Your task to perform on an android device: Open Amazon Image 0: 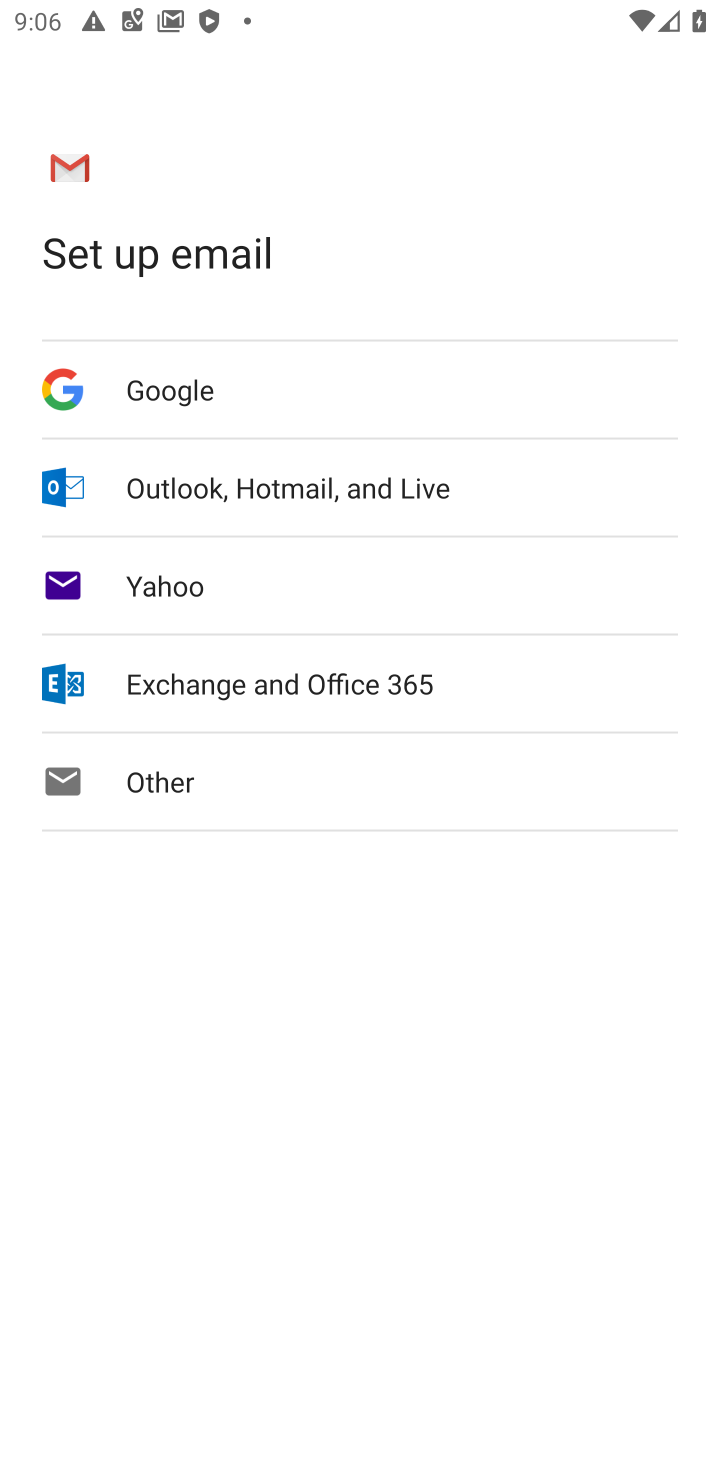
Step 0: press home button
Your task to perform on an android device: Open Amazon Image 1: 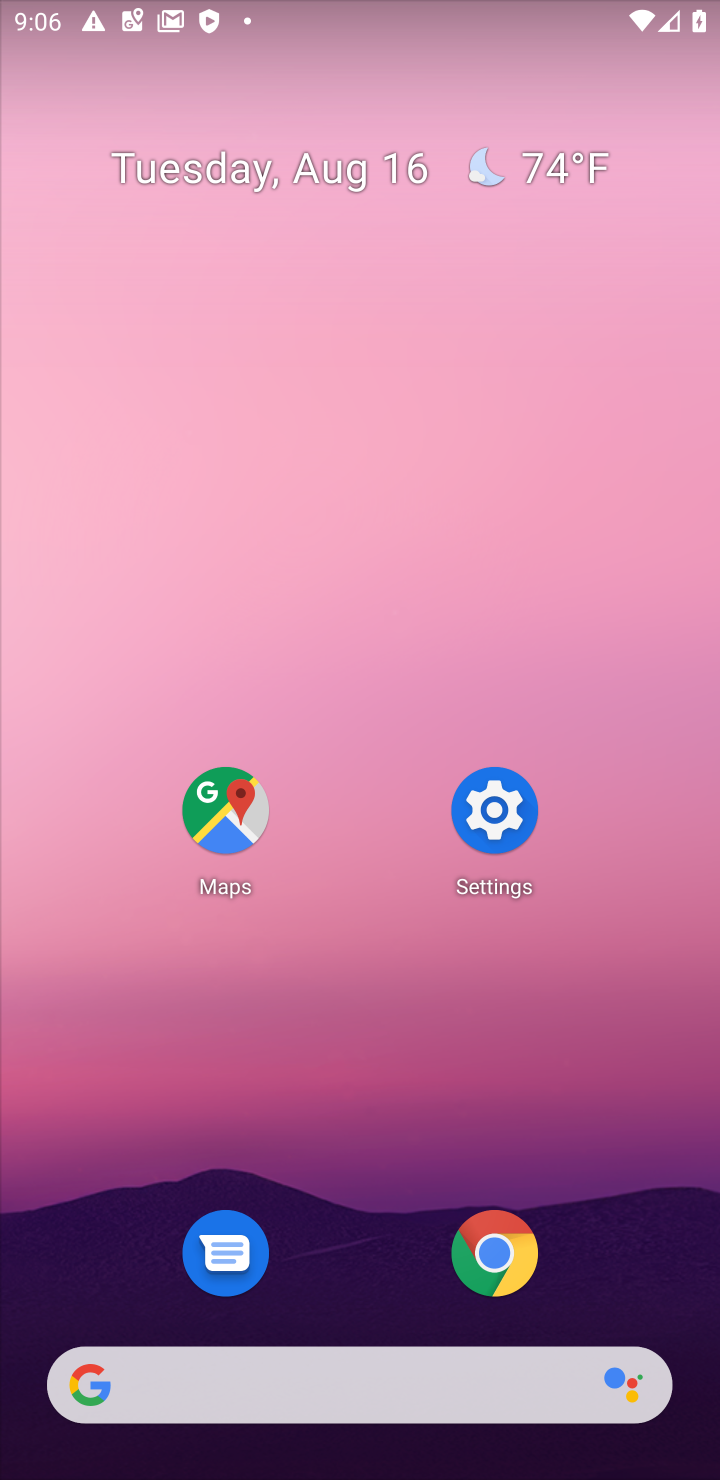
Step 1: click (501, 1254)
Your task to perform on an android device: Open Amazon Image 2: 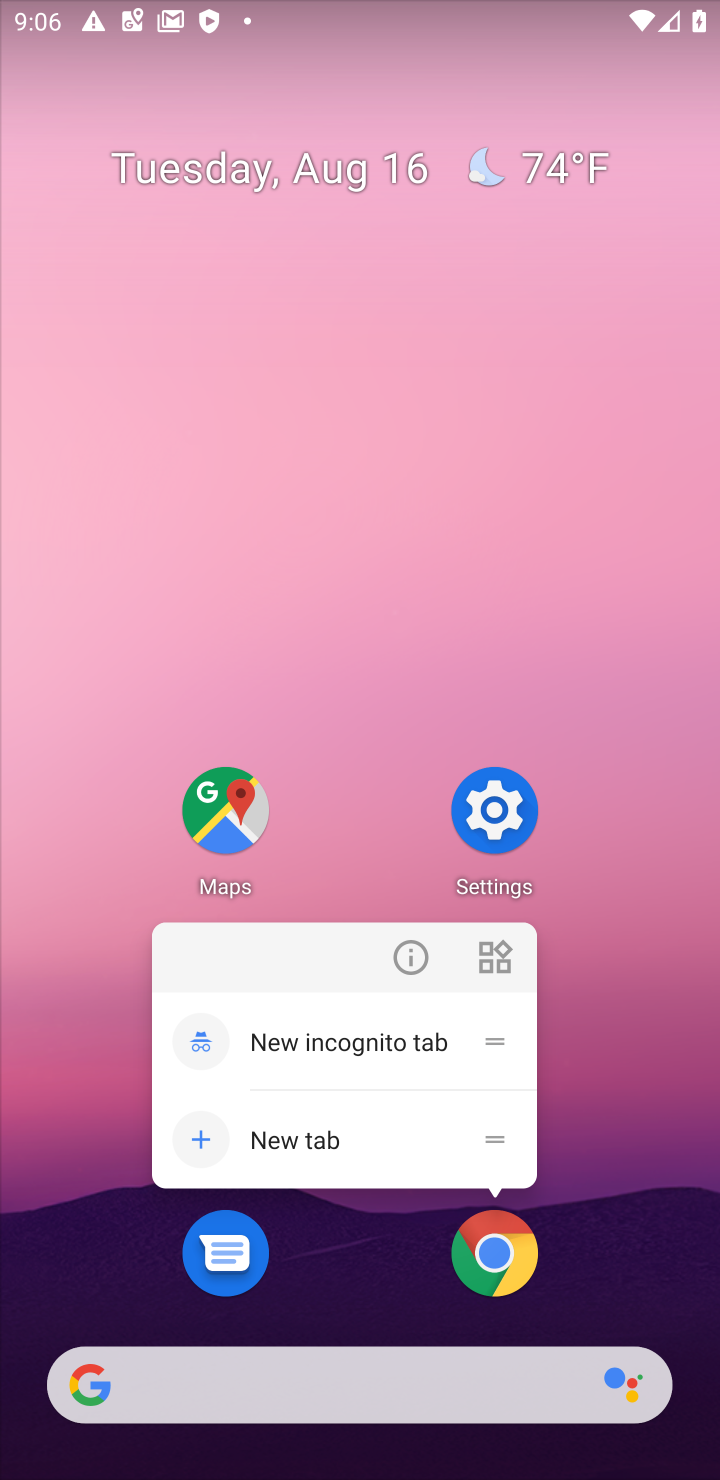
Step 2: click (501, 1256)
Your task to perform on an android device: Open Amazon Image 3: 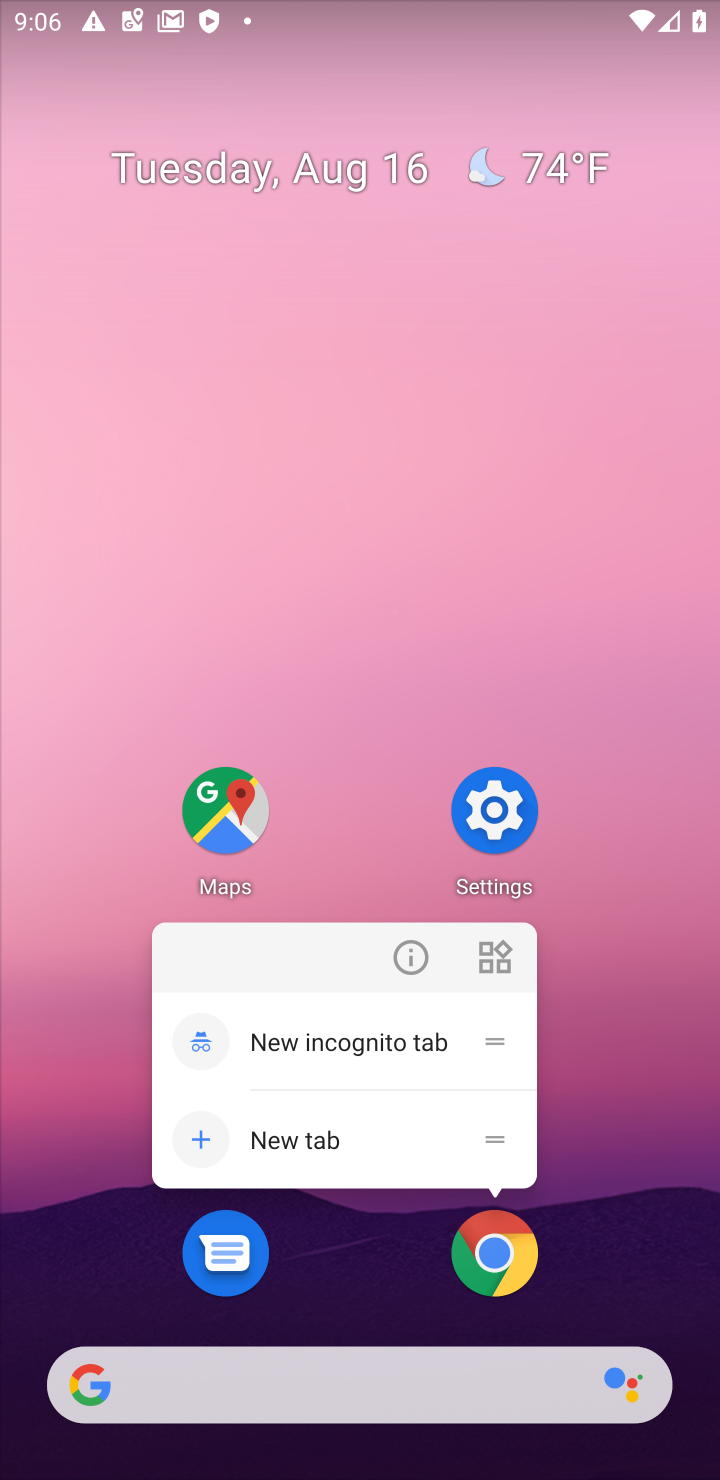
Step 3: click (501, 1256)
Your task to perform on an android device: Open Amazon Image 4: 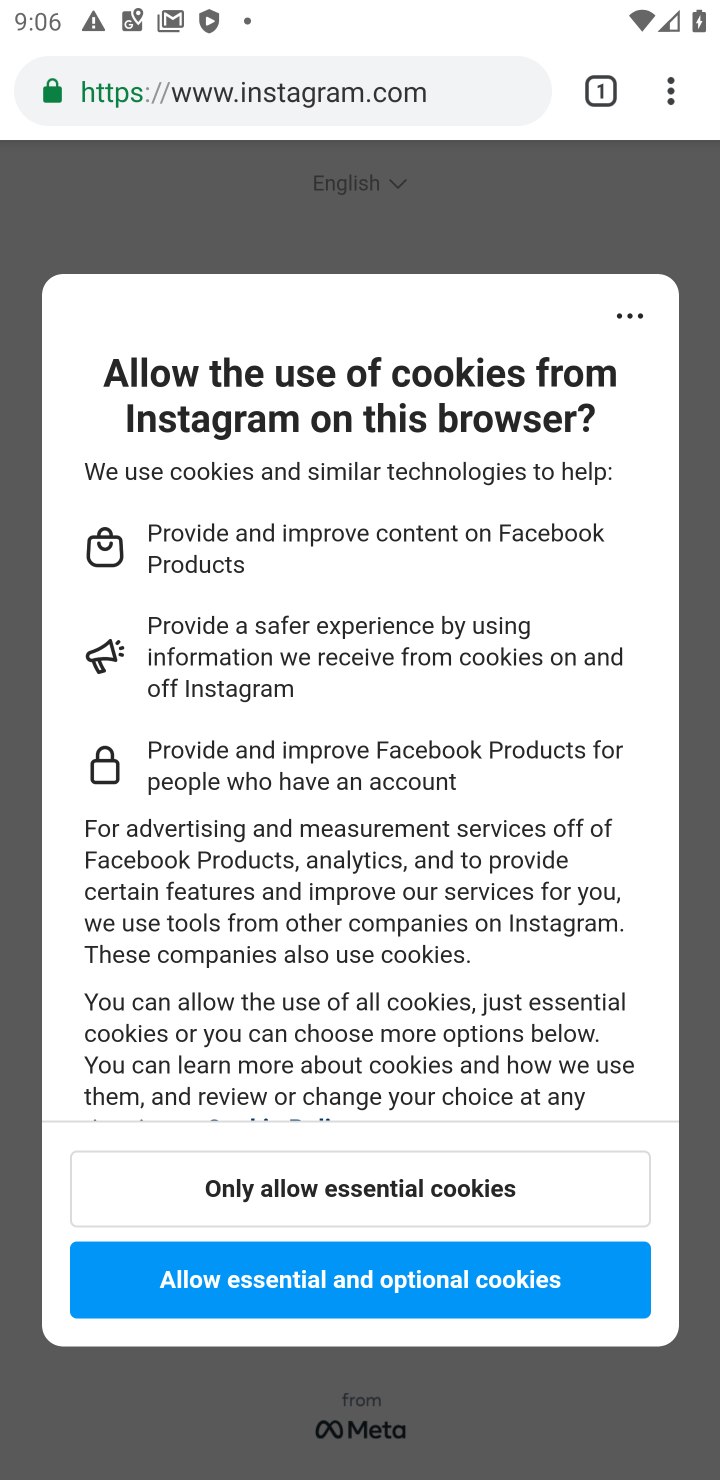
Step 4: drag from (667, 88) to (466, 185)
Your task to perform on an android device: Open Amazon Image 5: 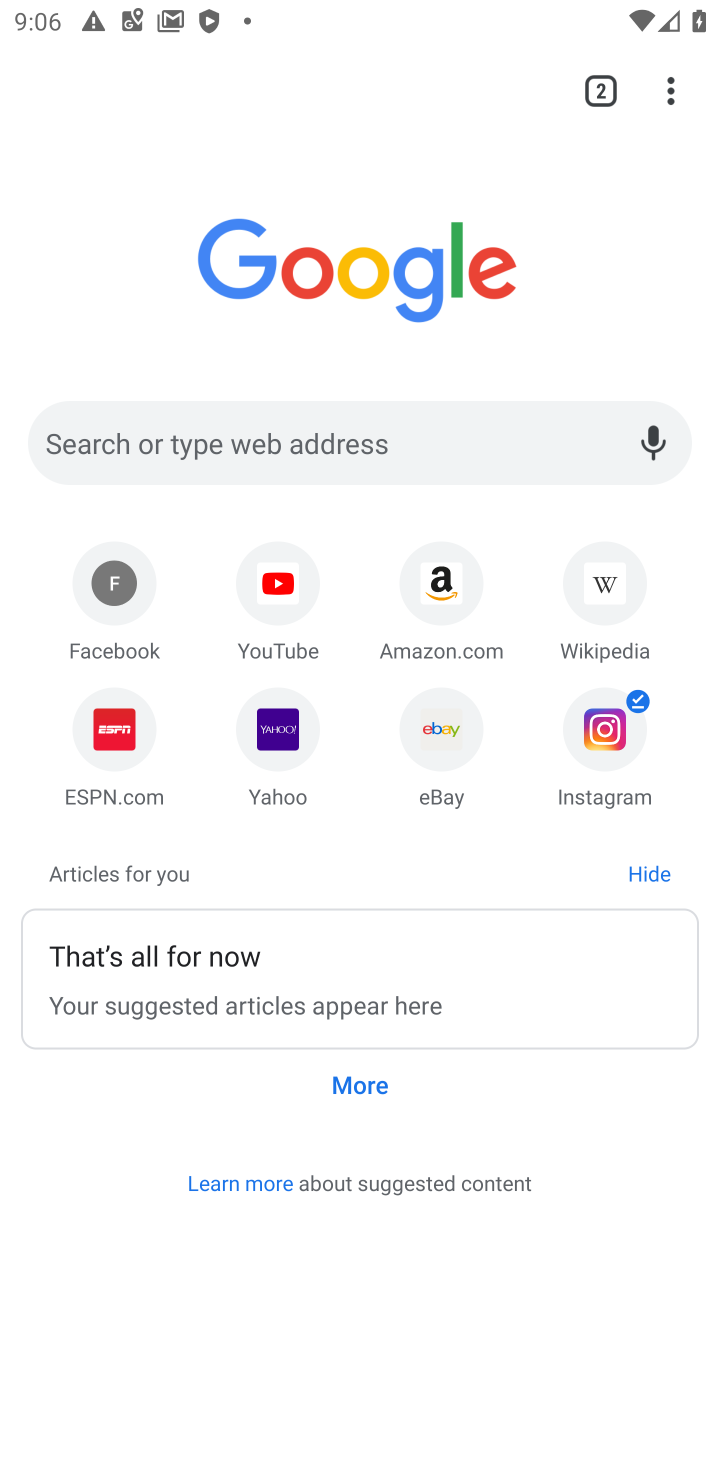
Step 5: click (438, 578)
Your task to perform on an android device: Open Amazon Image 6: 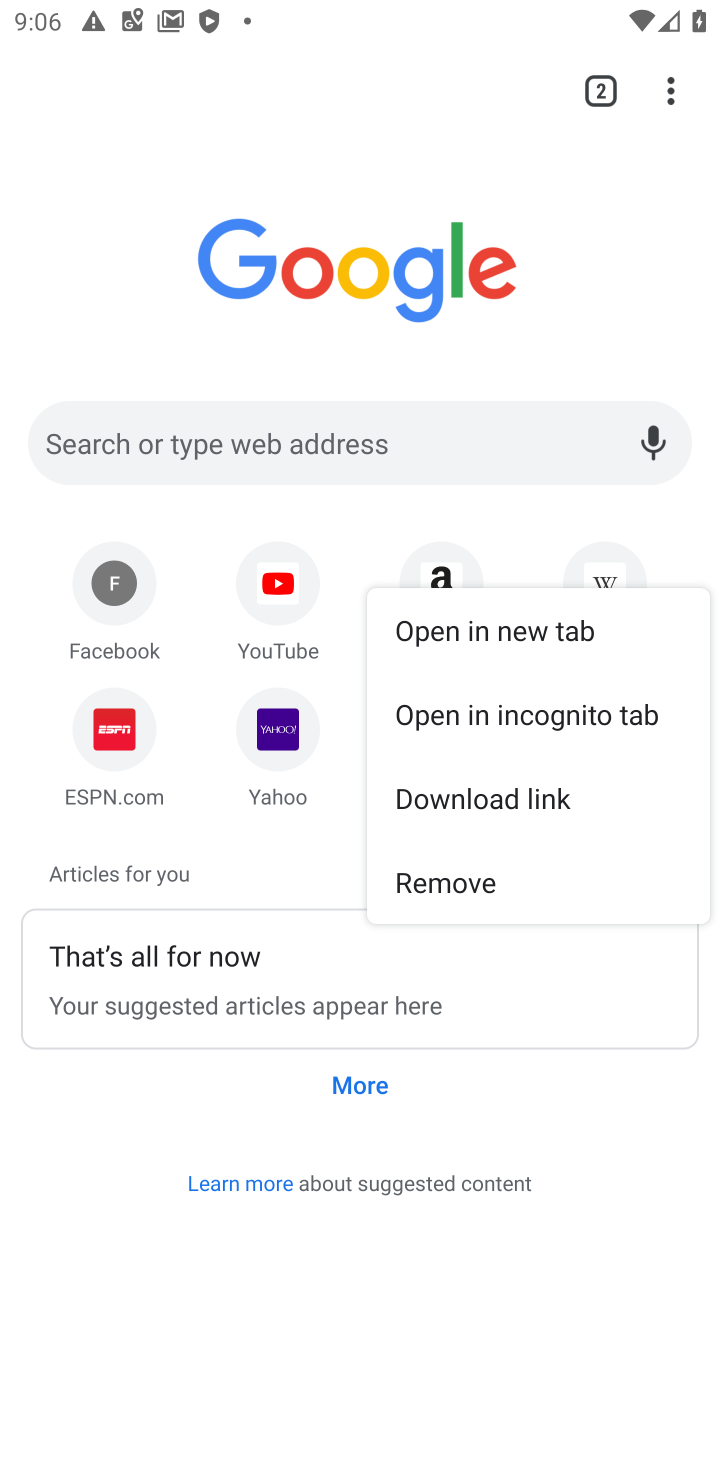
Step 6: click (438, 577)
Your task to perform on an android device: Open Amazon Image 7: 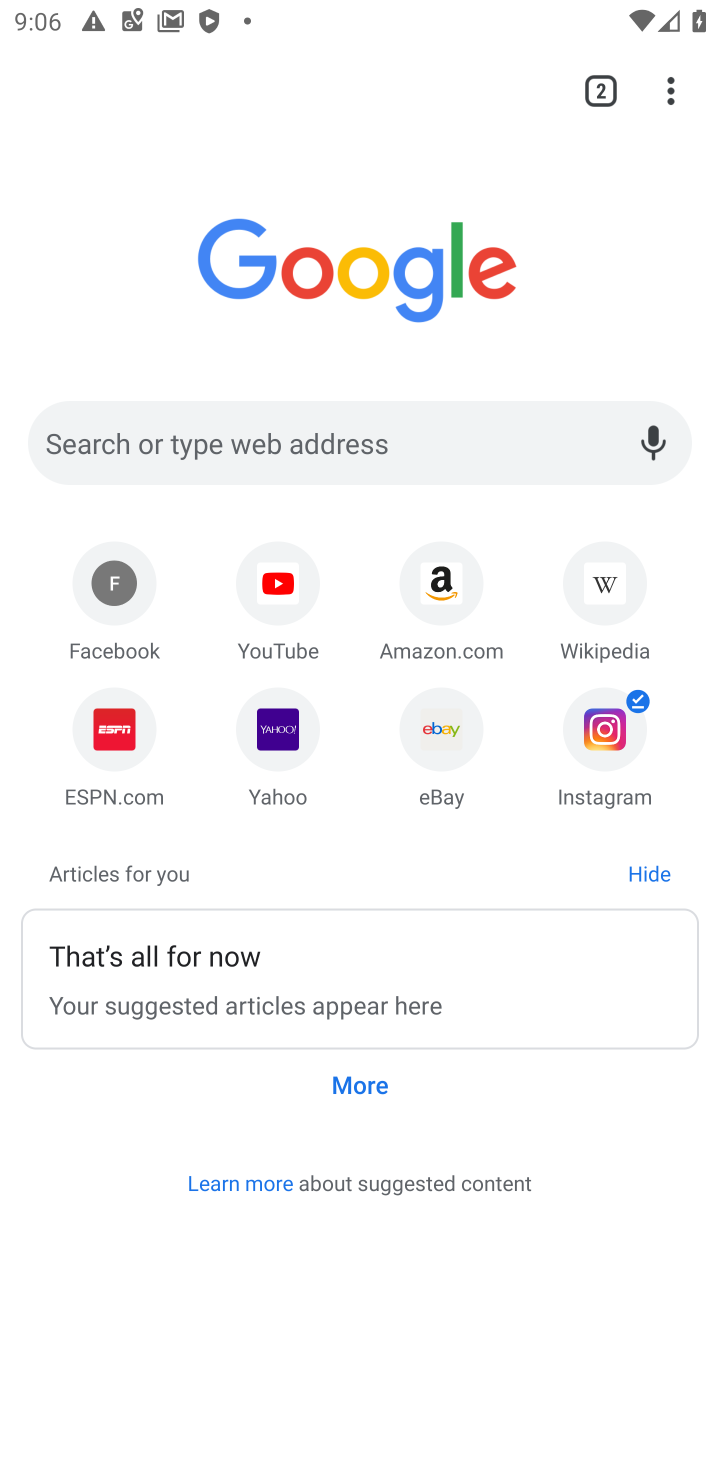
Step 7: click (438, 577)
Your task to perform on an android device: Open Amazon Image 8: 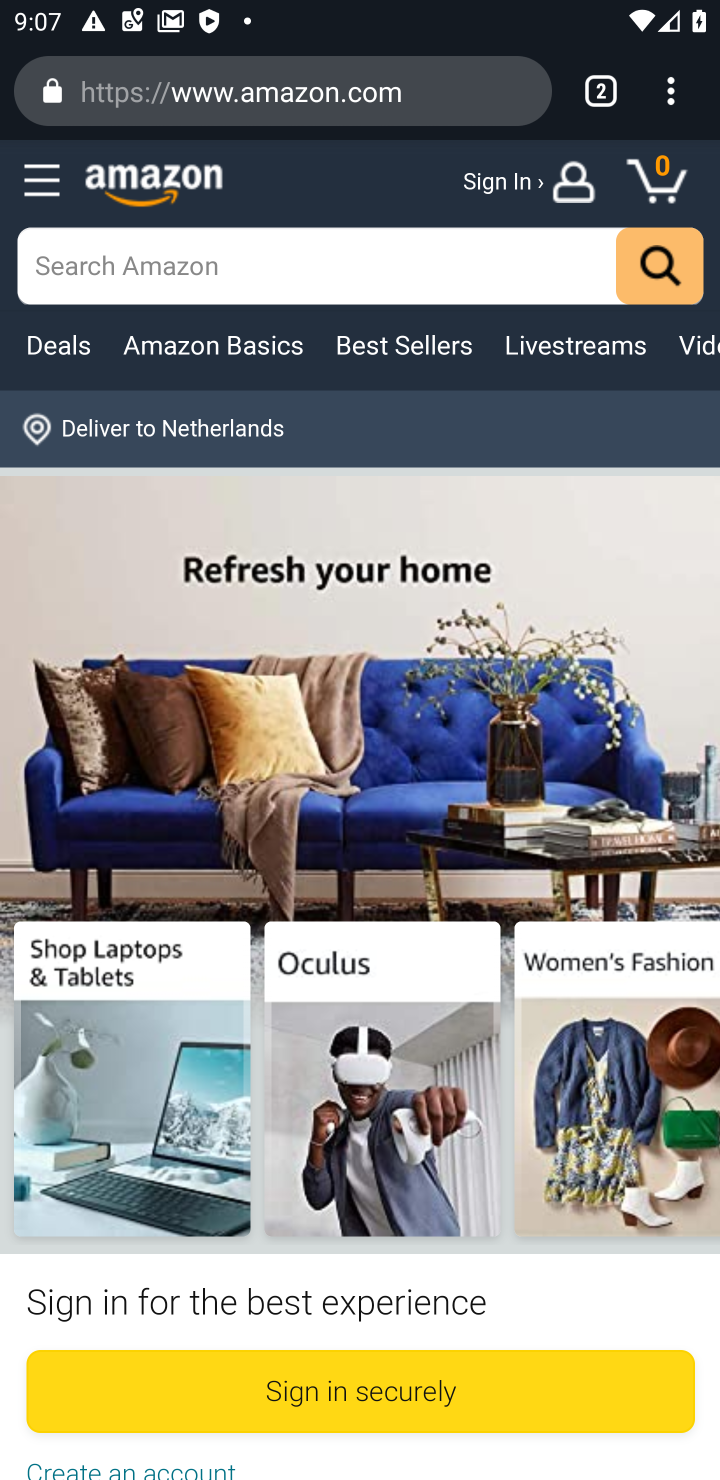
Step 8: task complete